Your task to perform on an android device: Find coffee shops on Maps Image 0: 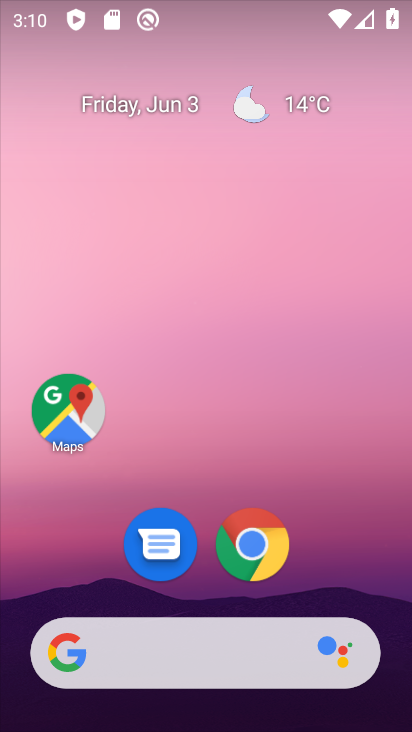
Step 0: click (67, 405)
Your task to perform on an android device: Find coffee shops on Maps Image 1: 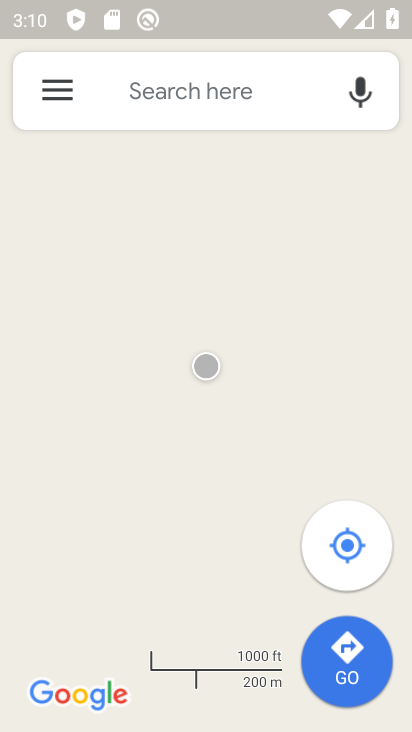
Step 1: click (203, 87)
Your task to perform on an android device: Find coffee shops on Maps Image 2: 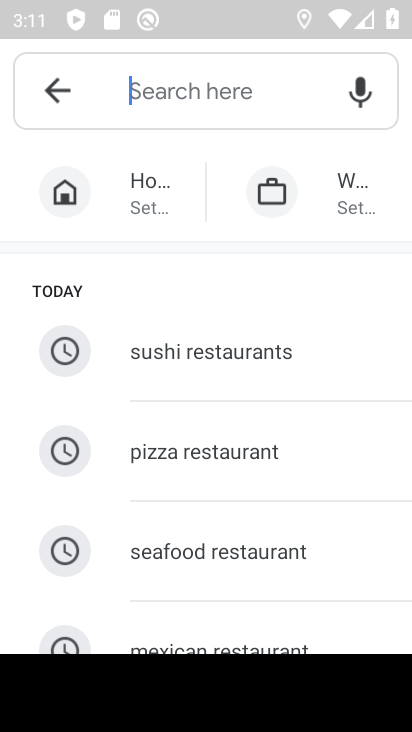
Step 2: type "coffee shop"
Your task to perform on an android device: Find coffee shops on Maps Image 3: 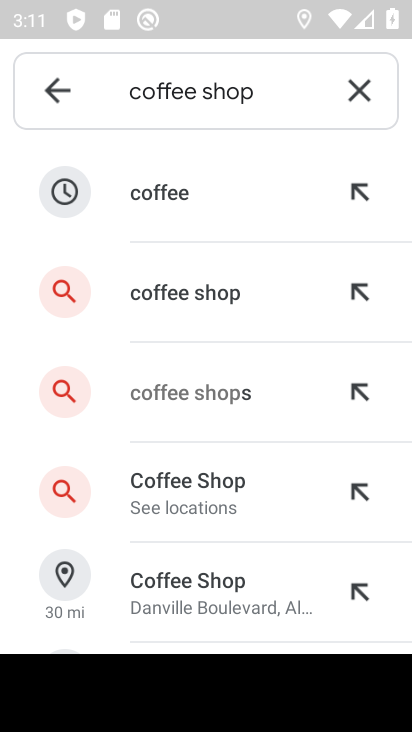
Step 3: click (204, 286)
Your task to perform on an android device: Find coffee shops on Maps Image 4: 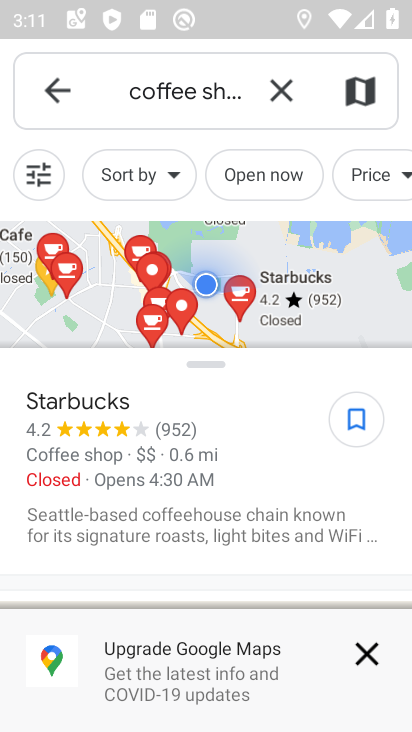
Step 4: task complete